Your task to perform on an android device: Go to eBay Image 0: 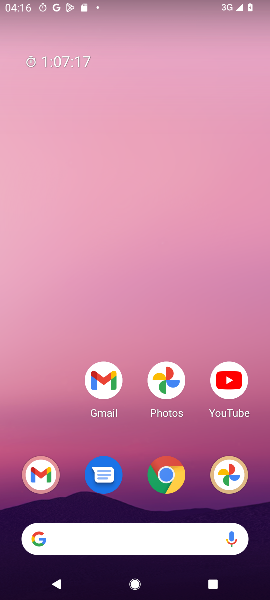
Step 0: press home button
Your task to perform on an android device: Go to eBay Image 1: 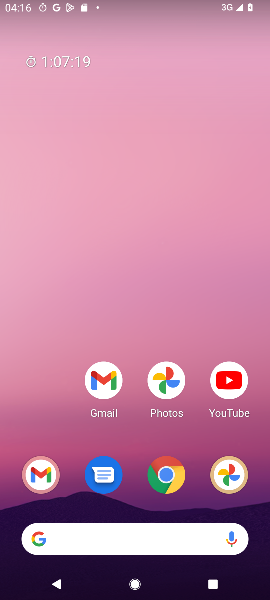
Step 1: drag from (53, 415) to (57, 183)
Your task to perform on an android device: Go to eBay Image 2: 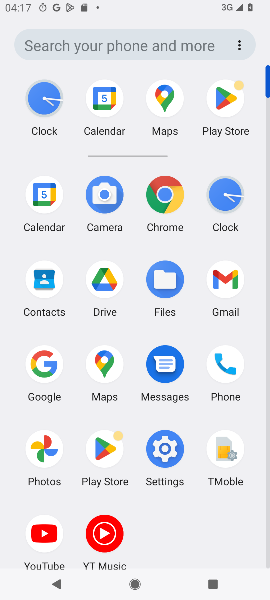
Step 2: click (174, 194)
Your task to perform on an android device: Go to eBay Image 3: 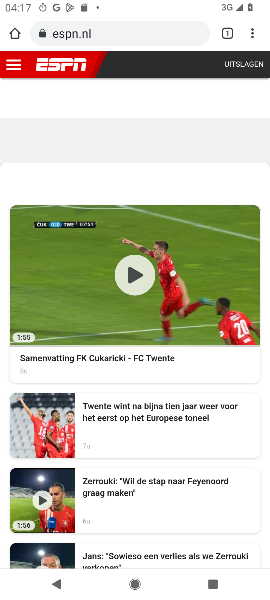
Step 3: click (145, 29)
Your task to perform on an android device: Go to eBay Image 4: 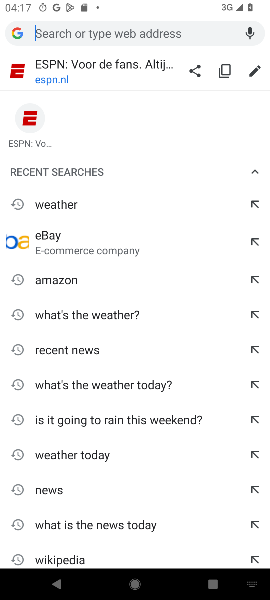
Step 4: type "ebay"
Your task to perform on an android device: Go to eBay Image 5: 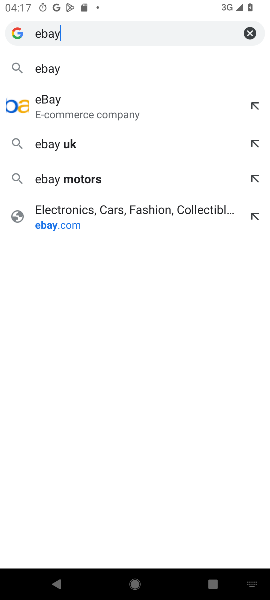
Step 5: click (105, 105)
Your task to perform on an android device: Go to eBay Image 6: 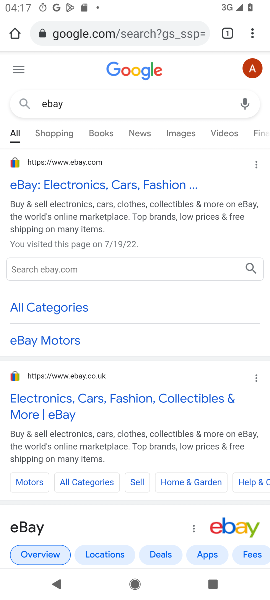
Step 6: task complete